Your task to perform on an android device: clear all cookies in the chrome app Image 0: 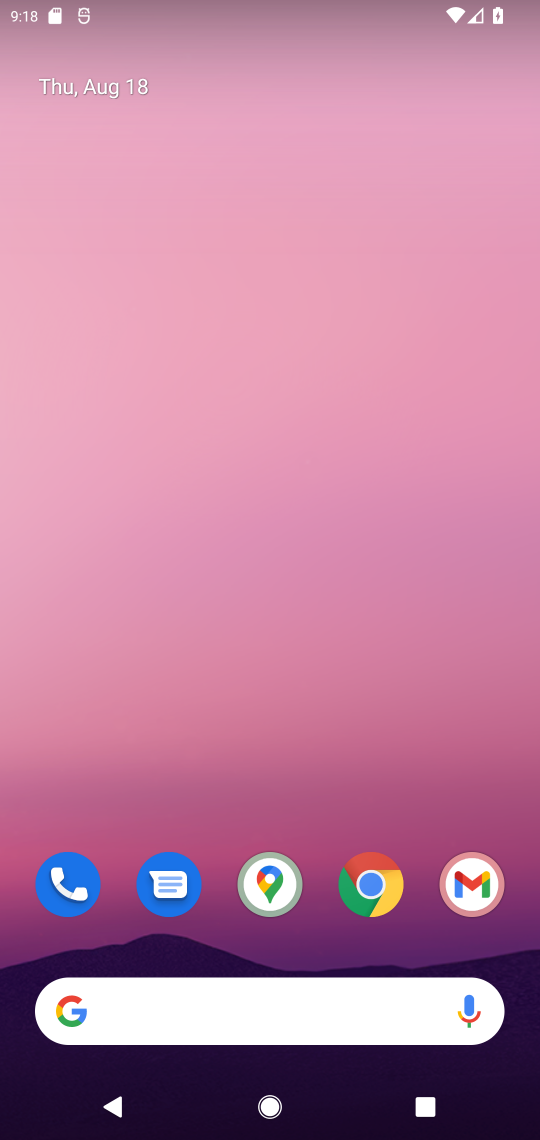
Step 0: click (378, 868)
Your task to perform on an android device: clear all cookies in the chrome app Image 1: 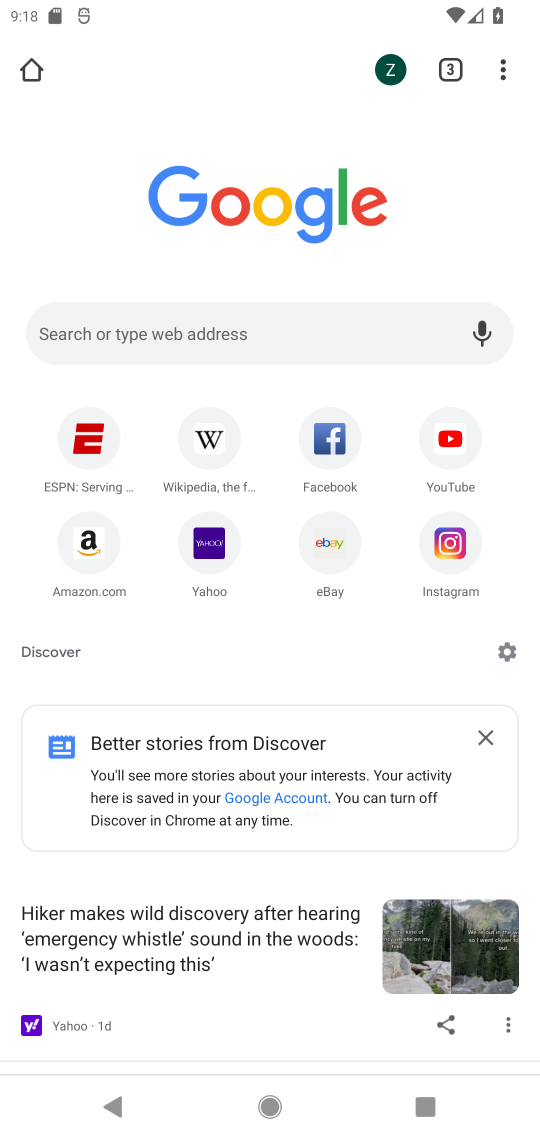
Step 1: click (511, 64)
Your task to perform on an android device: clear all cookies in the chrome app Image 2: 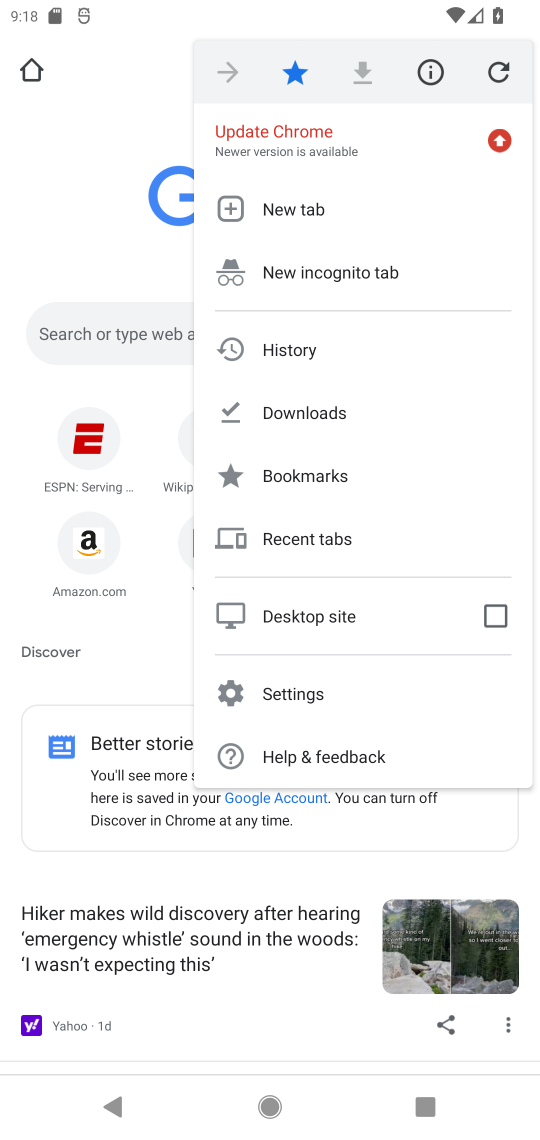
Step 2: click (307, 691)
Your task to perform on an android device: clear all cookies in the chrome app Image 3: 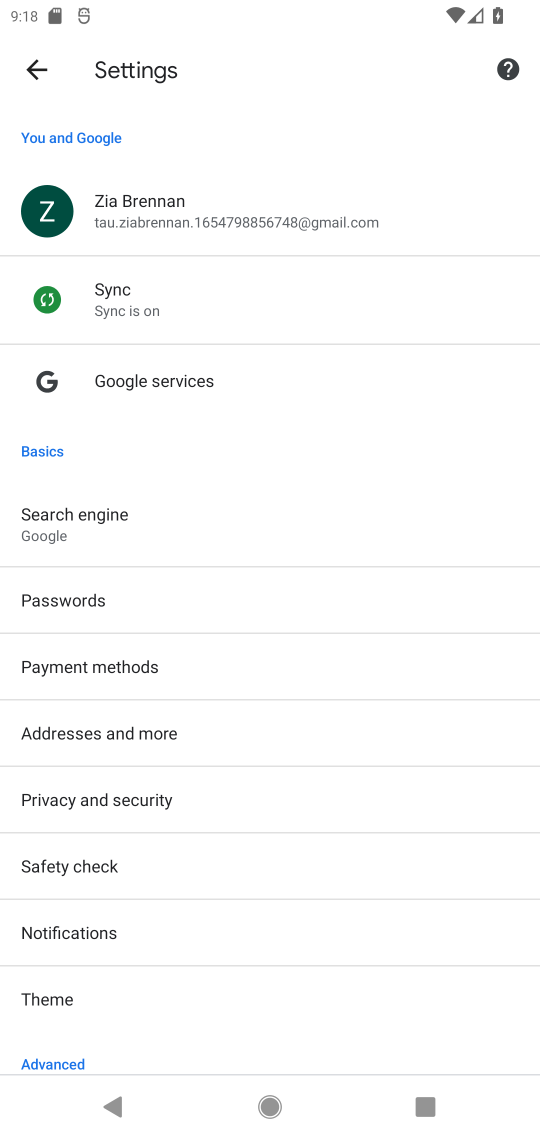
Step 3: drag from (247, 859) to (221, 300)
Your task to perform on an android device: clear all cookies in the chrome app Image 4: 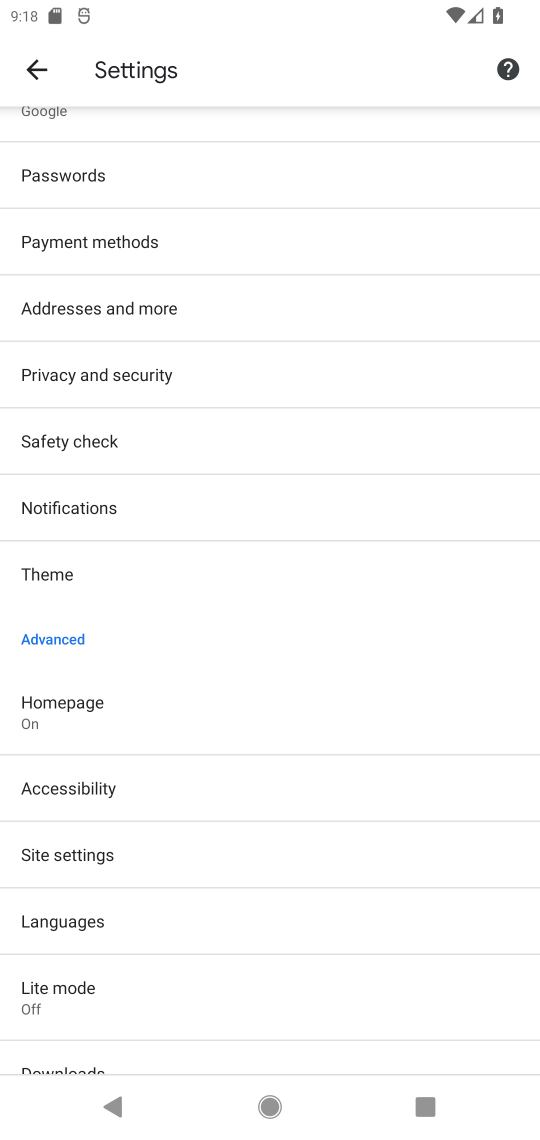
Step 4: click (131, 857)
Your task to perform on an android device: clear all cookies in the chrome app Image 5: 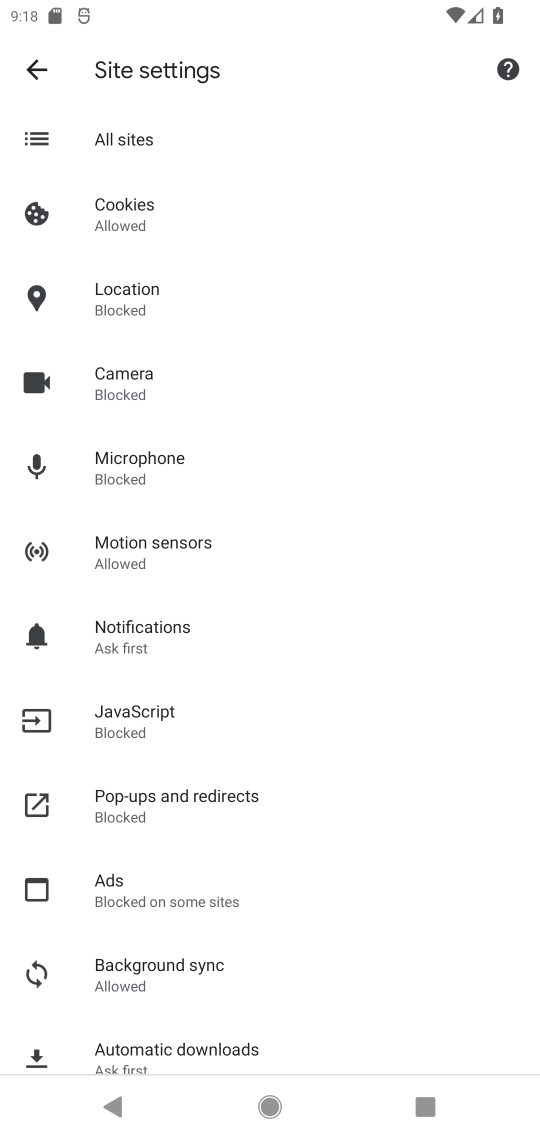
Step 5: click (164, 199)
Your task to perform on an android device: clear all cookies in the chrome app Image 6: 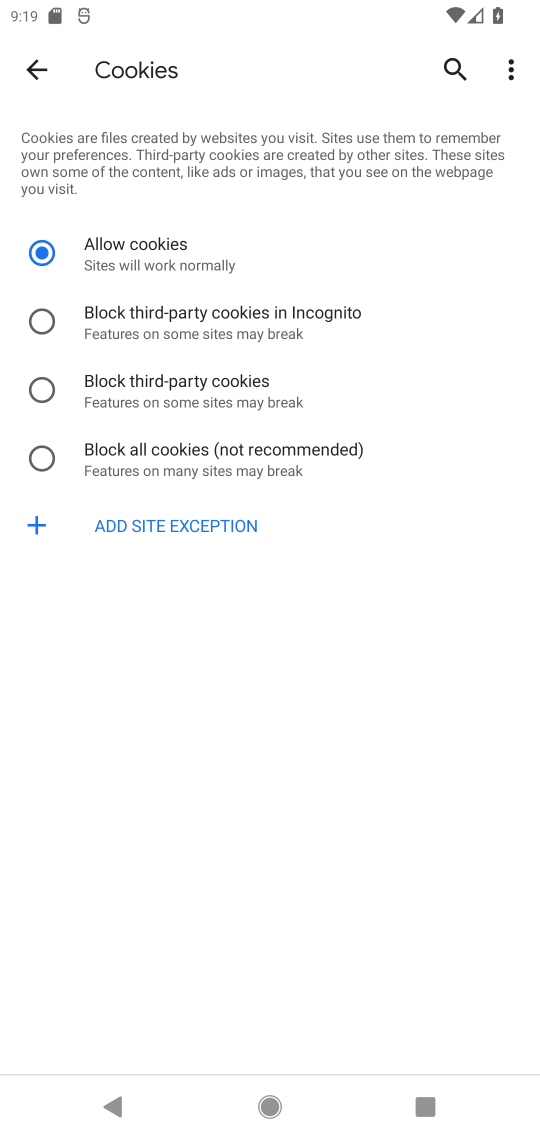
Step 6: task complete